Your task to perform on an android device: What's the weather? Image 0: 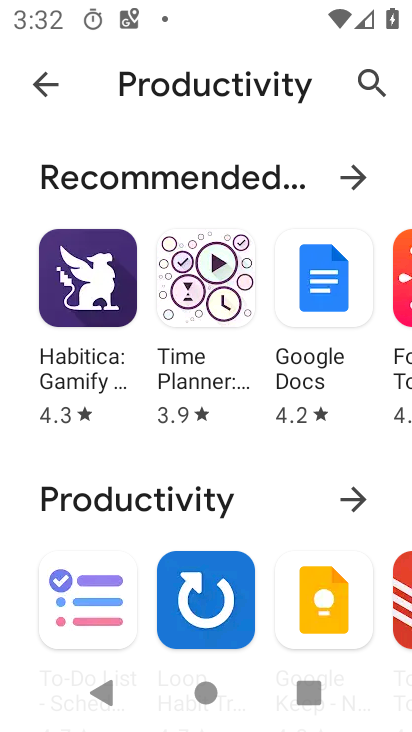
Step 0: press home button
Your task to perform on an android device: What's the weather? Image 1: 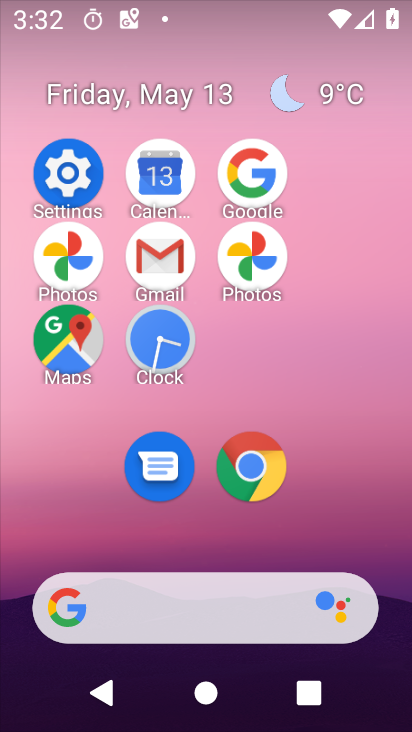
Step 1: click (248, 190)
Your task to perform on an android device: What's the weather? Image 2: 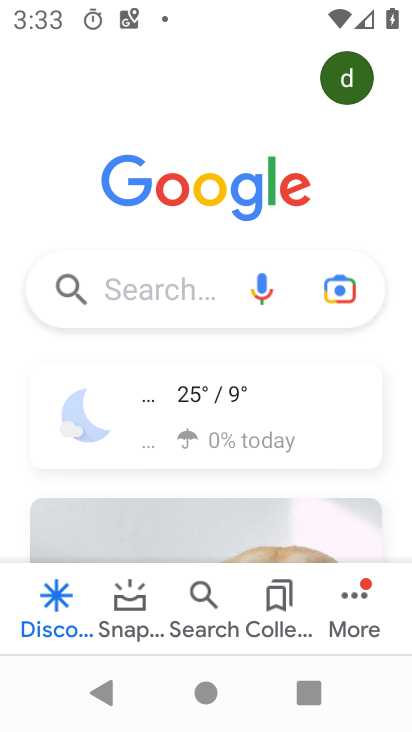
Step 2: click (195, 383)
Your task to perform on an android device: What's the weather? Image 3: 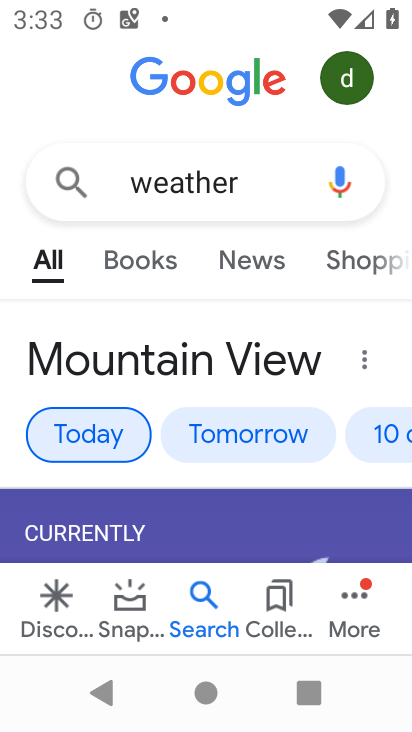
Step 3: task complete